Your task to perform on an android device: Clear the cart on costco. Search for "apple airpods pro" on costco, select the first entry, and add it to the cart. Image 0: 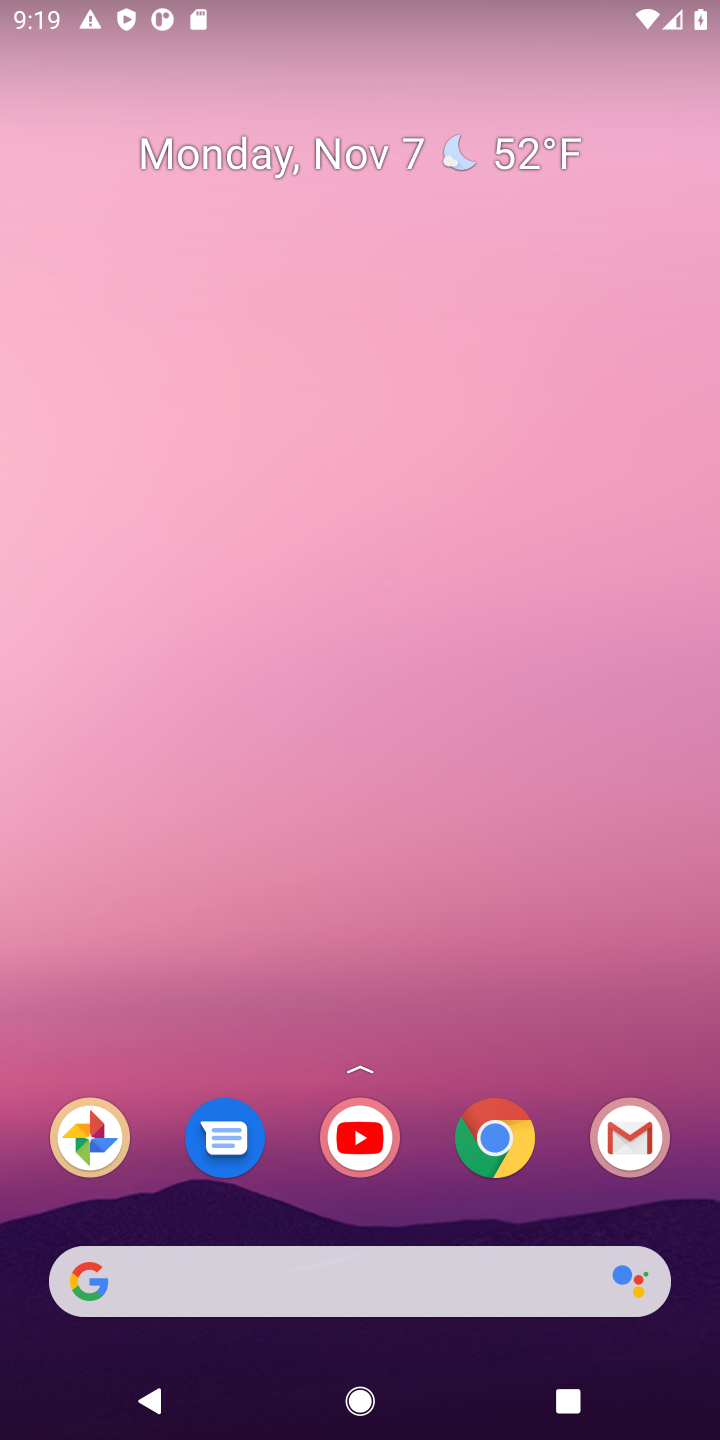
Step 0: drag from (438, 1067) to (509, 192)
Your task to perform on an android device: Clear the cart on costco. Search for "apple airpods pro" on costco, select the first entry, and add it to the cart. Image 1: 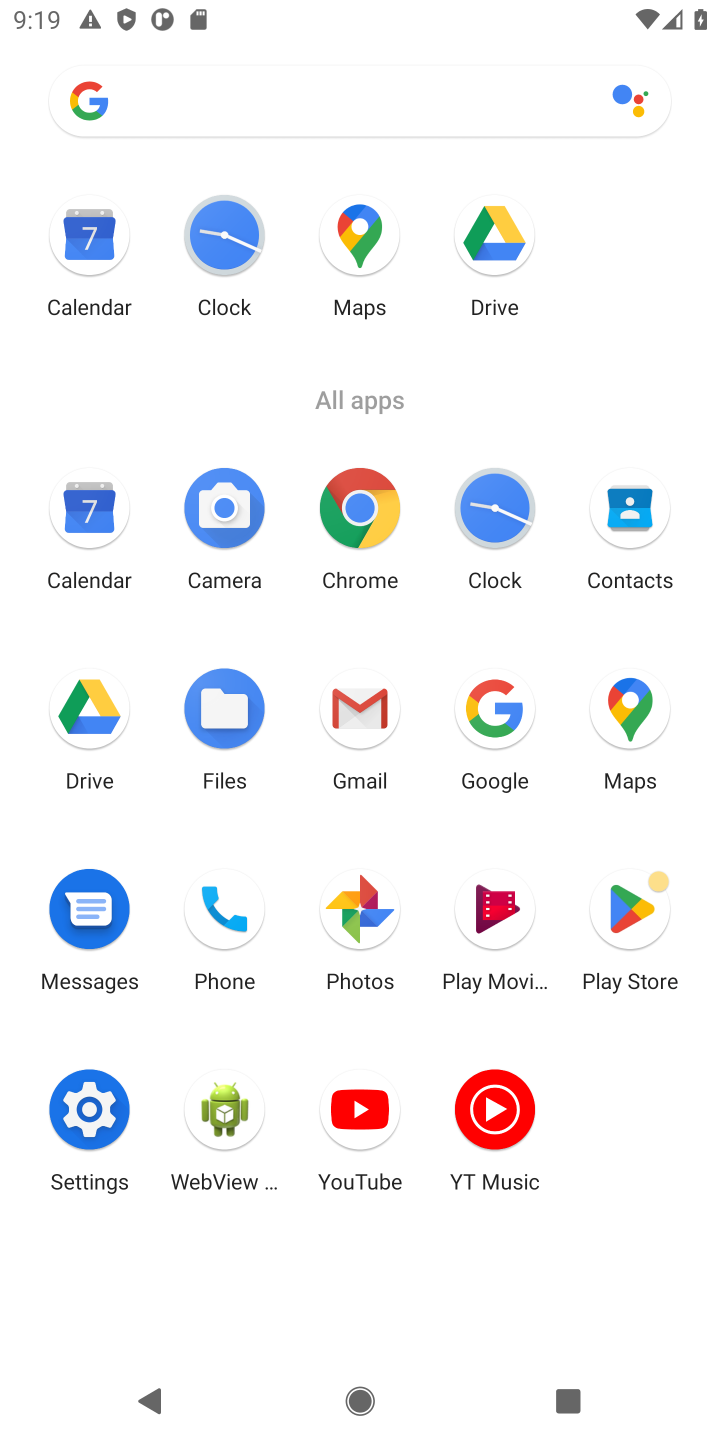
Step 1: click (362, 508)
Your task to perform on an android device: Clear the cart on costco. Search for "apple airpods pro" on costco, select the first entry, and add it to the cart. Image 2: 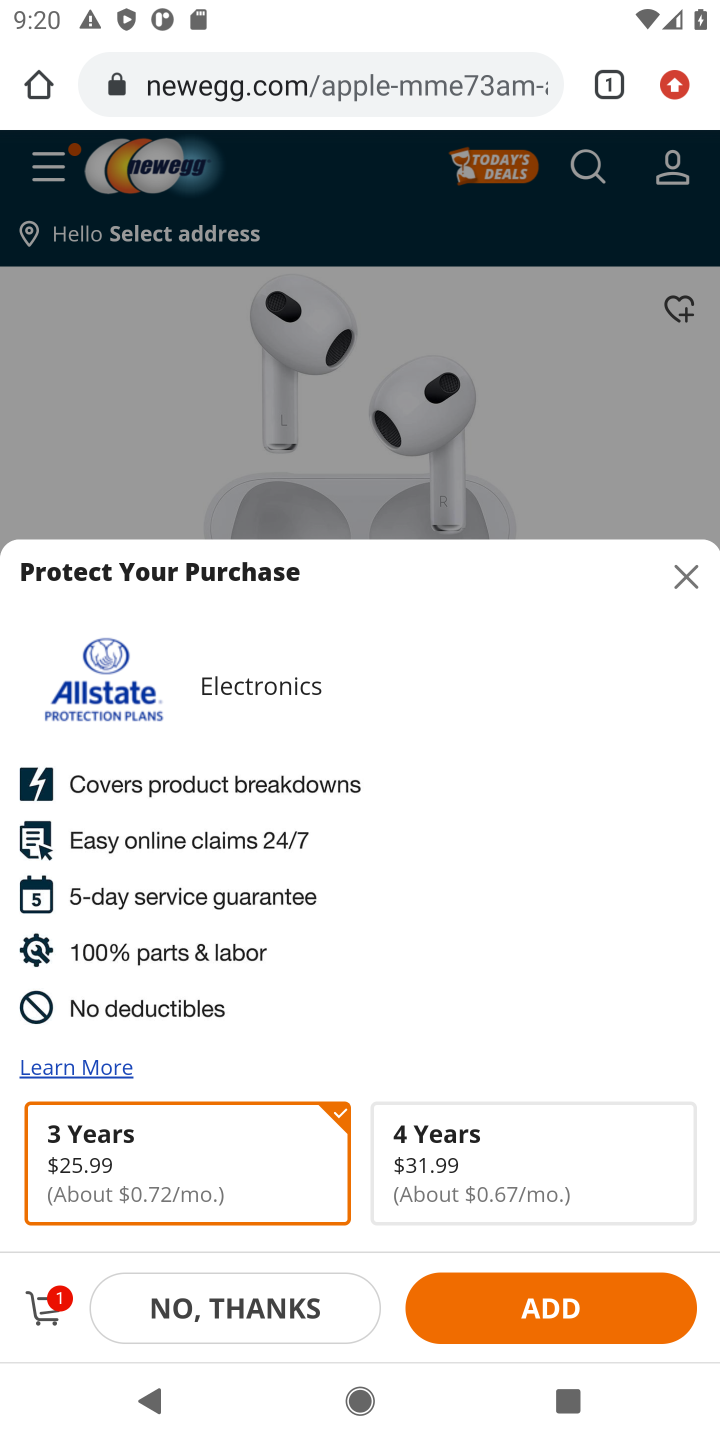
Step 2: click (342, 84)
Your task to perform on an android device: Clear the cart on costco. Search for "apple airpods pro" on costco, select the first entry, and add it to the cart. Image 3: 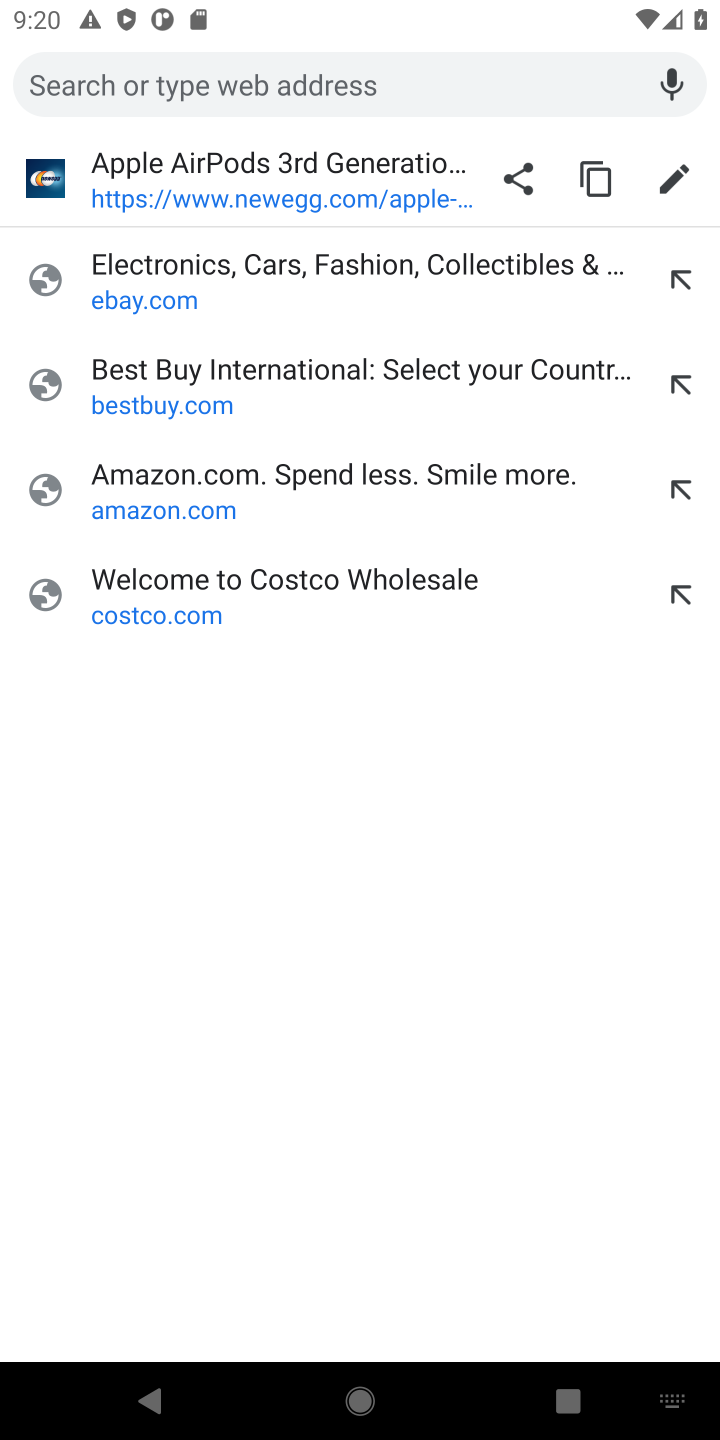
Step 3: type "costco.com"
Your task to perform on an android device: Clear the cart on costco. Search for "apple airpods pro" on costco, select the first entry, and add it to the cart. Image 4: 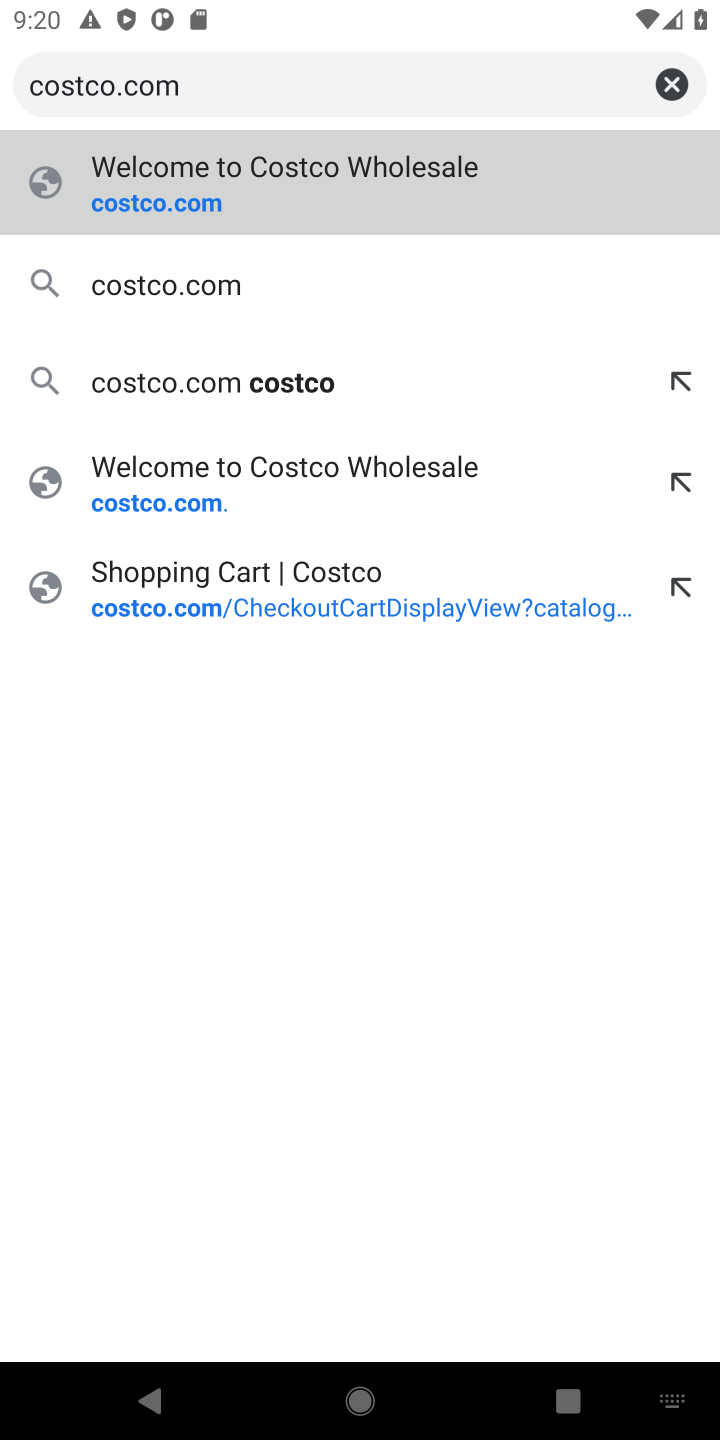
Step 4: press enter
Your task to perform on an android device: Clear the cart on costco. Search for "apple airpods pro" on costco, select the first entry, and add it to the cart. Image 5: 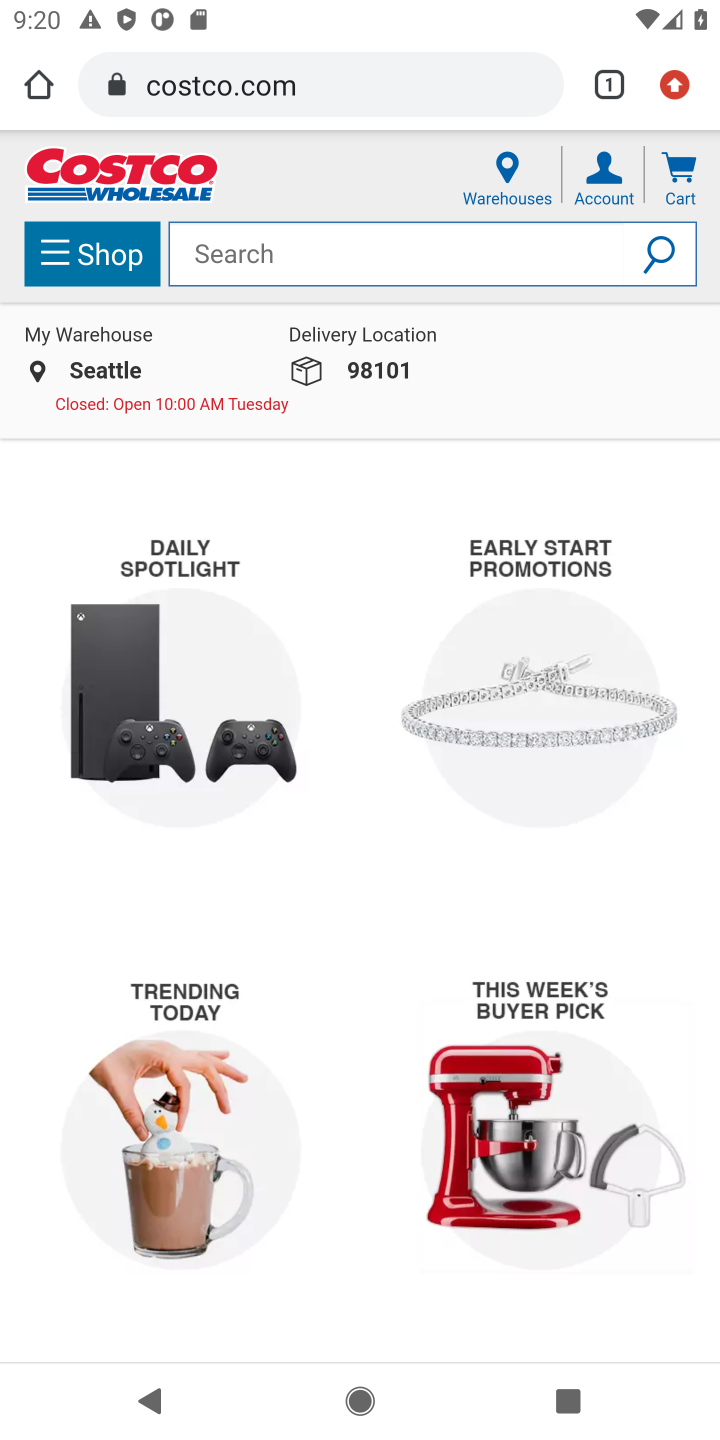
Step 5: click (404, 247)
Your task to perform on an android device: Clear the cart on costco. Search for "apple airpods pro" on costco, select the first entry, and add it to the cart. Image 6: 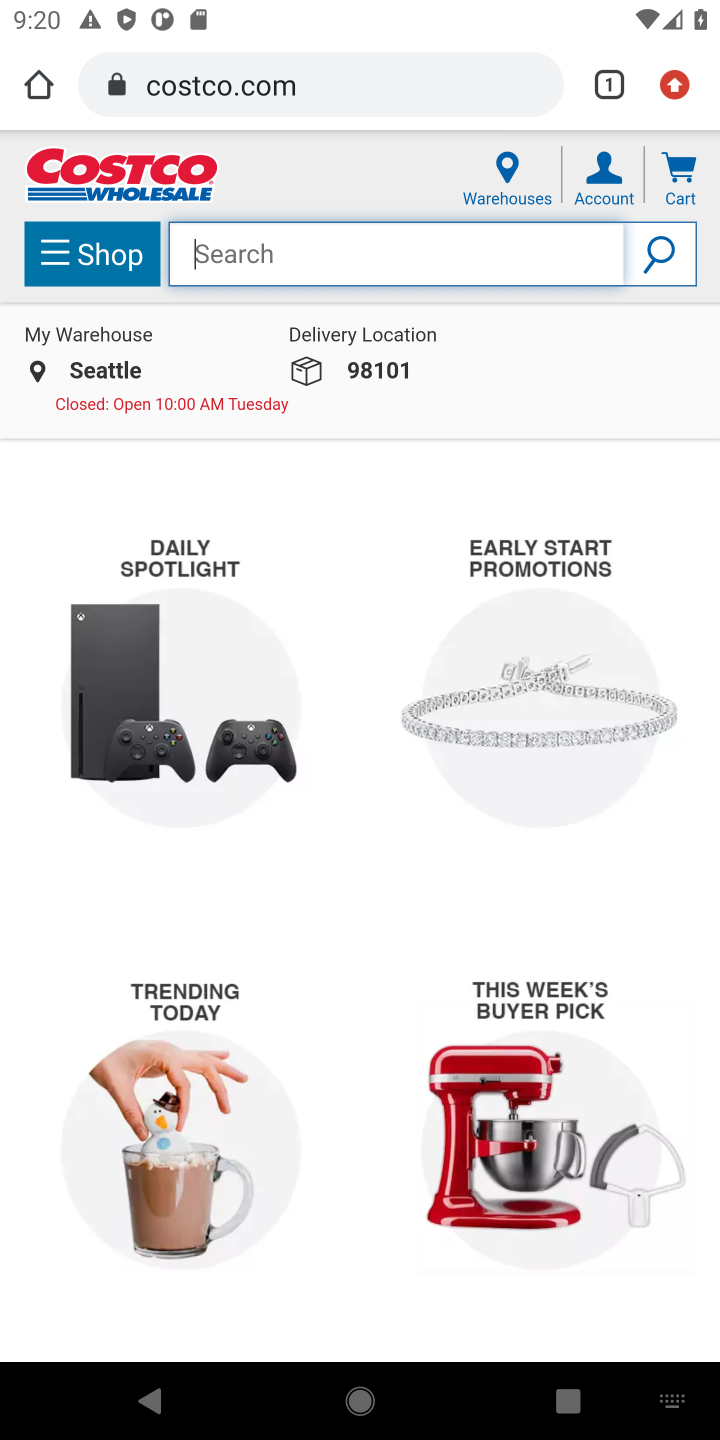
Step 6: click (679, 163)
Your task to perform on an android device: Clear the cart on costco. Search for "apple airpods pro" on costco, select the first entry, and add it to the cart. Image 7: 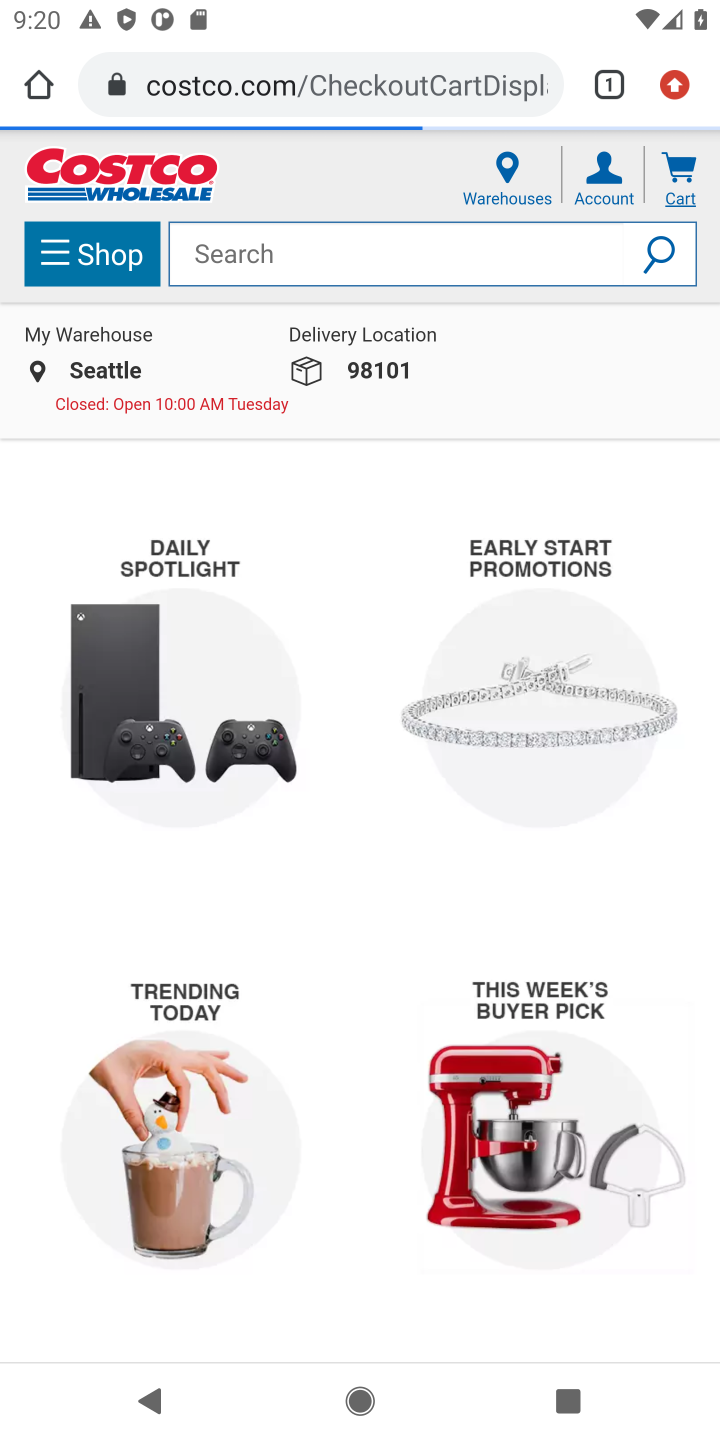
Step 7: click (671, 183)
Your task to perform on an android device: Clear the cart on costco. Search for "apple airpods pro" on costco, select the first entry, and add it to the cart. Image 8: 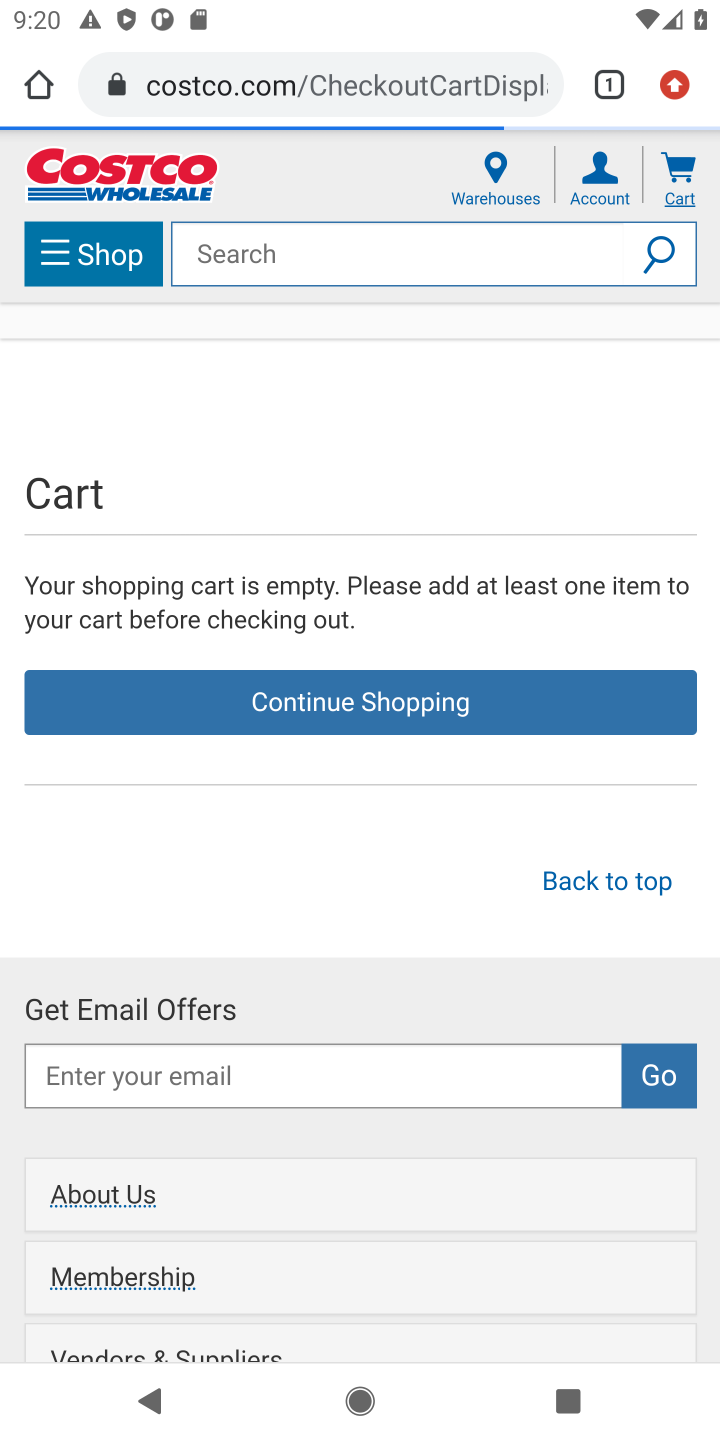
Step 8: click (275, 244)
Your task to perform on an android device: Clear the cart on costco. Search for "apple airpods pro" on costco, select the first entry, and add it to the cart. Image 9: 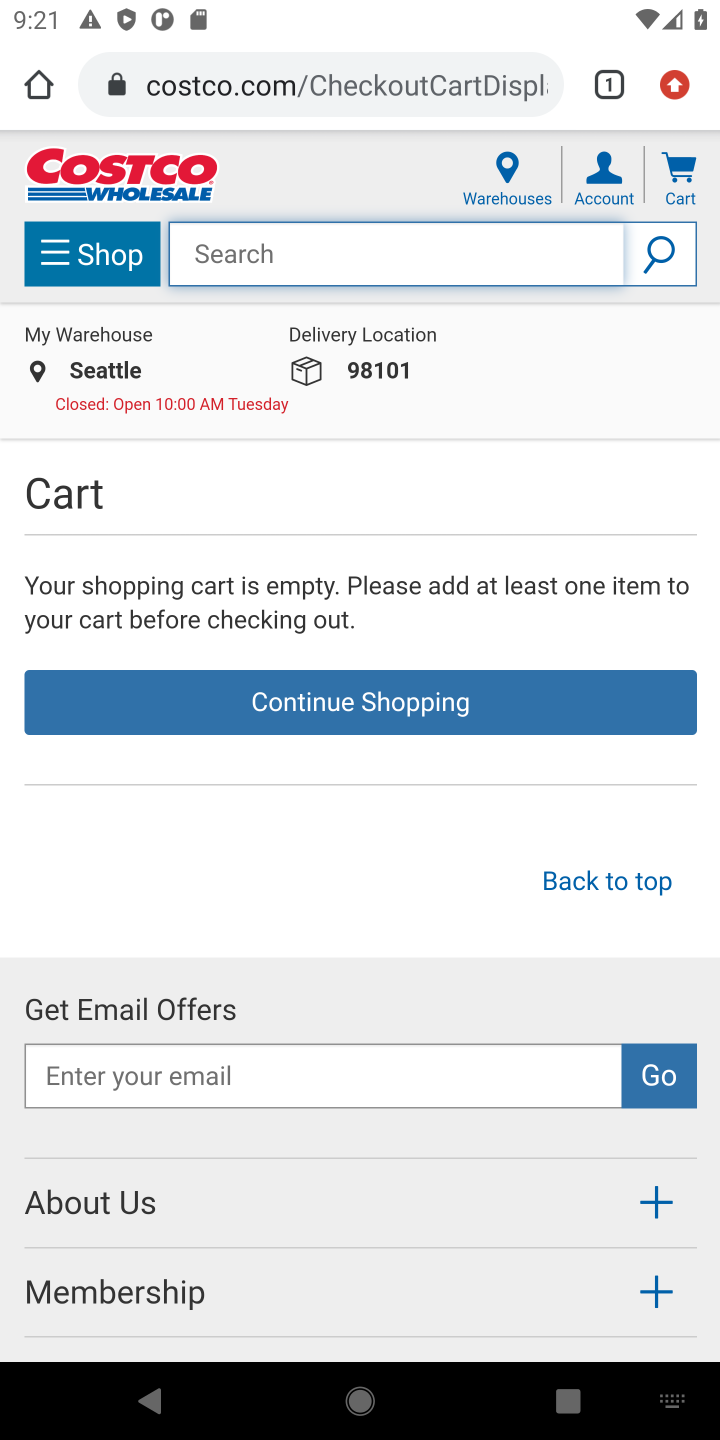
Step 9: type "apple airpods pro"
Your task to perform on an android device: Clear the cart on costco. Search for "apple airpods pro" on costco, select the first entry, and add it to the cart. Image 10: 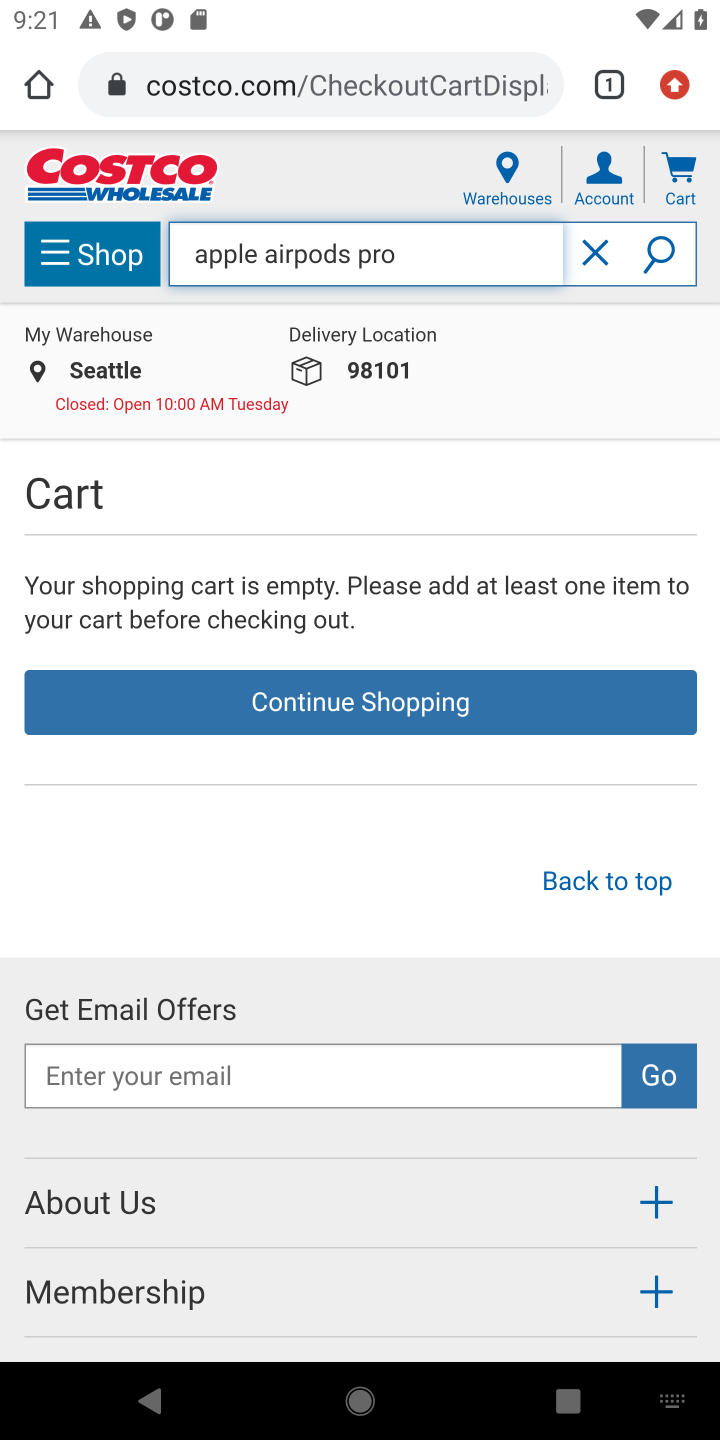
Step 10: press enter
Your task to perform on an android device: Clear the cart on costco. Search for "apple airpods pro" on costco, select the first entry, and add it to the cart. Image 11: 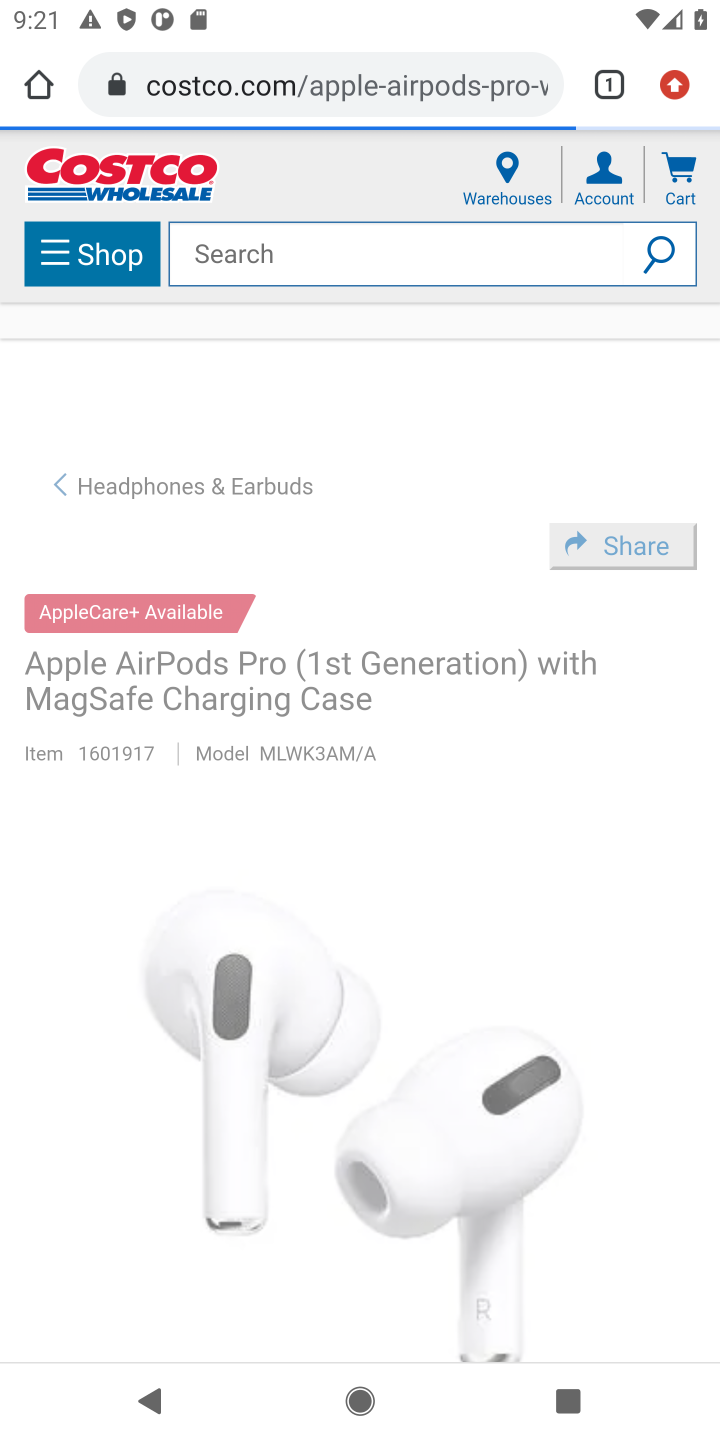
Step 11: task complete